Your task to perform on an android device: Turn off the flashlight Image 0: 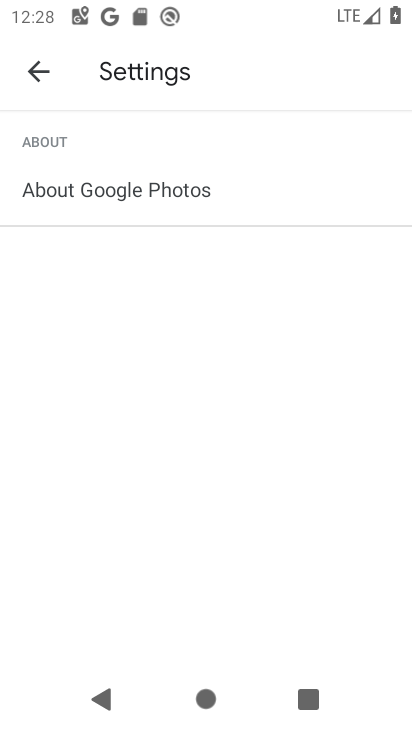
Step 0: drag from (322, 570) to (324, 138)
Your task to perform on an android device: Turn off the flashlight Image 1: 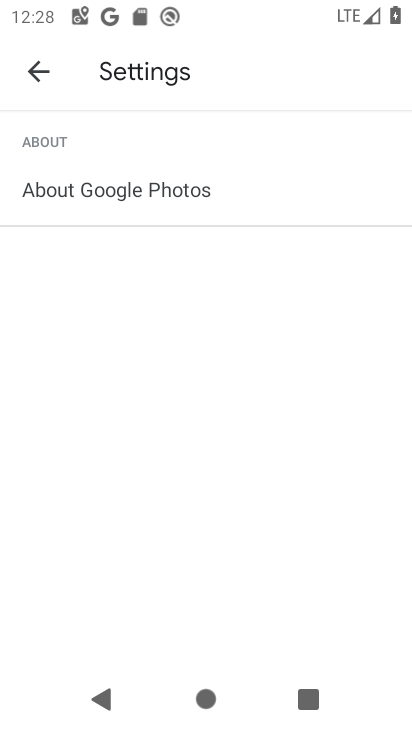
Step 1: task complete